Your task to perform on an android device: delete the emails in spam in the gmail app Image 0: 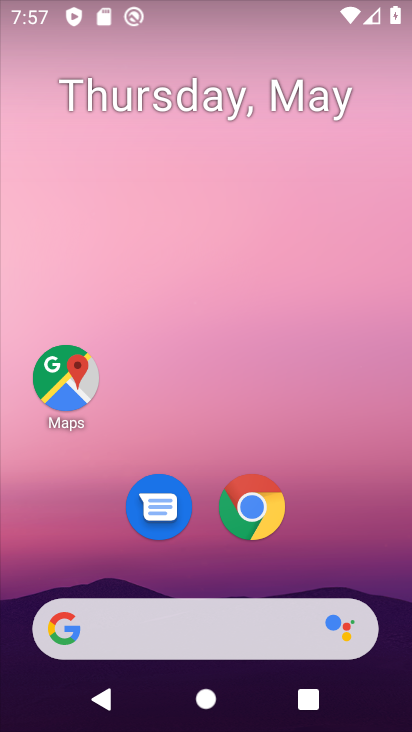
Step 0: drag from (368, 597) to (298, 213)
Your task to perform on an android device: delete the emails in spam in the gmail app Image 1: 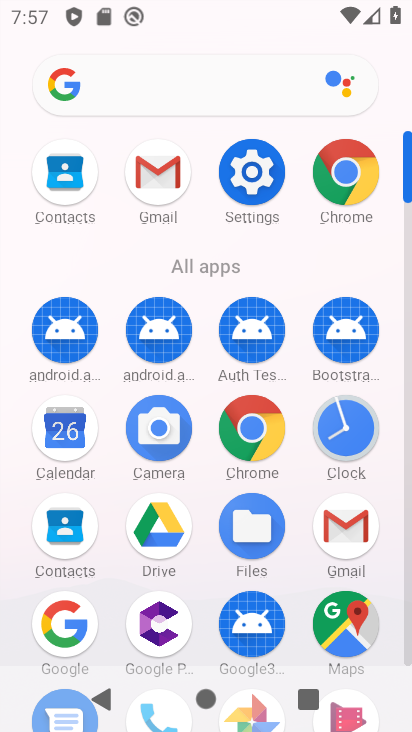
Step 1: click (154, 184)
Your task to perform on an android device: delete the emails in spam in the gmail app Image 2: 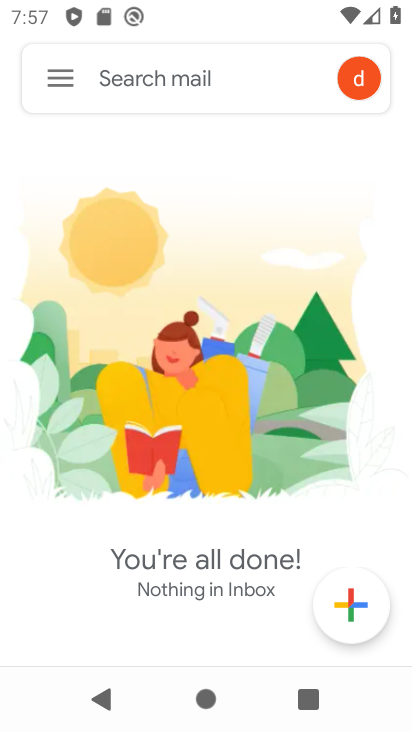
Step 2: click (71, 70)
Your task to perform on an android device: delete the emails in spam in the gmail app Image 3: 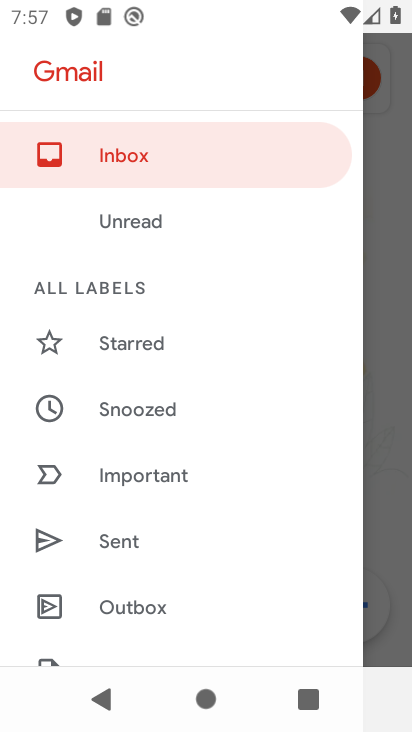
Step 3: drag from (161, 587) to (131, 290)
Your task to perform on an android device: delete the emails in spam in the gmail app Image 4: 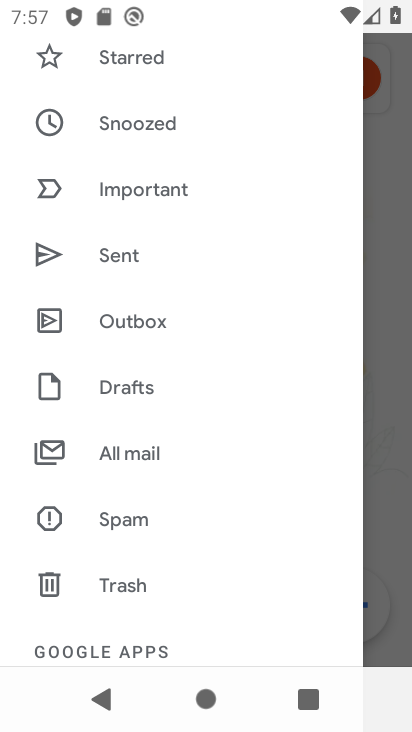
Step 4: click (123, 515)
Your task to perform on an android device: delete the emails in spam in the gmail app Image 5: 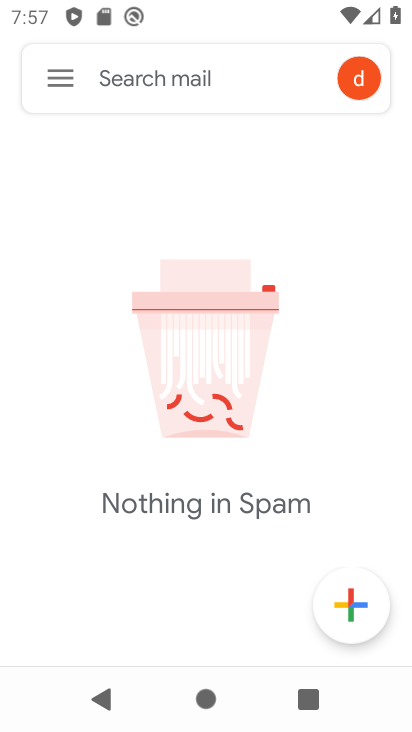
Step 5: task complete